Your task to perform on an android device: turn on showing notifications on the lock screen Image 0: 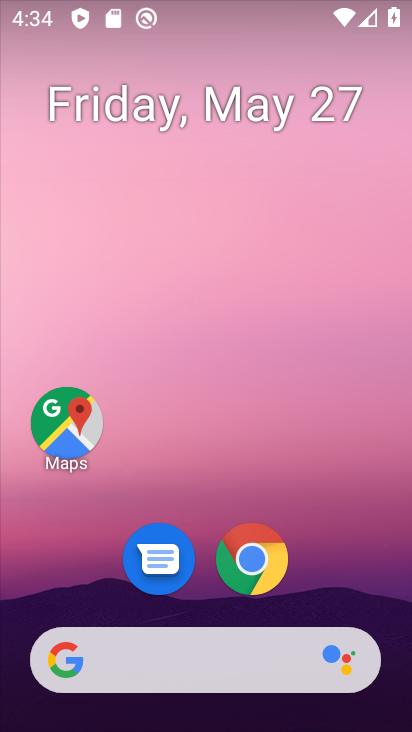
Step 0: drag from (324, 522) to (271, 97)
Your task to perform on an android device: turn on showing notifications on the lock screen Image 1: 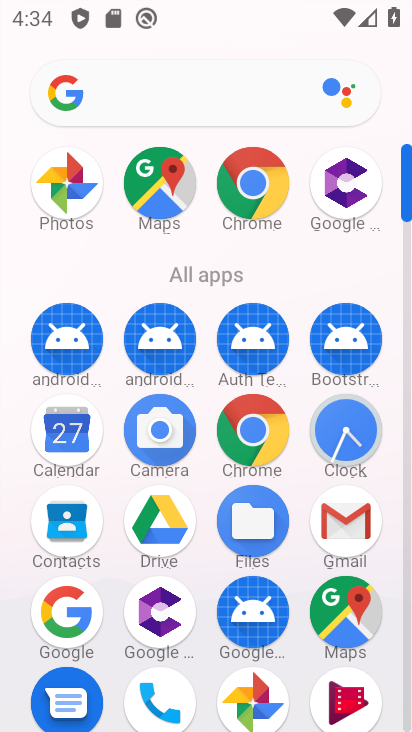
Step 1: drag from (215, 473) to (226, 137)
Your task to perform on an android device: turn on showing notifications on the lock screen Image 2: 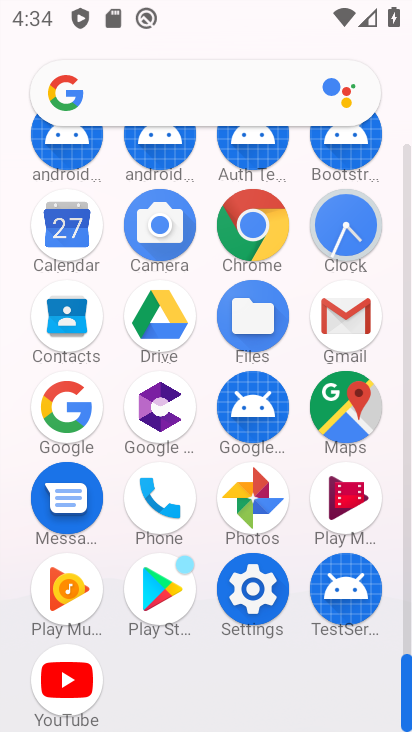
Step 2: click (240, 604)
Your task to perform on an android device: turn on showing notifications on the lock screen Image 3: 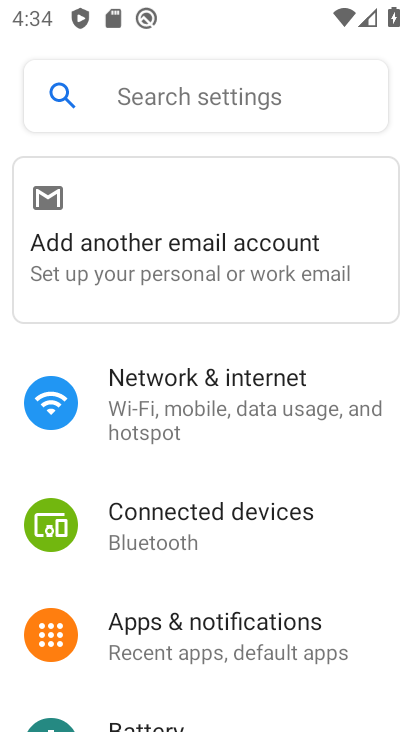
Step 3: click (220, 628)
Your task to perform on an android device: turn on showing notifications on the lock screen Image 4: 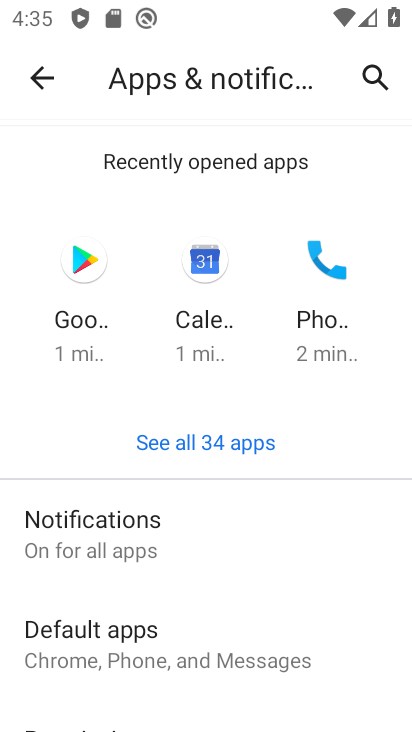
Step 4: drag from (199, 591) to (276, 214)
Your task to perform on an android device: turn on showing notifications on the lock screen Image 5: 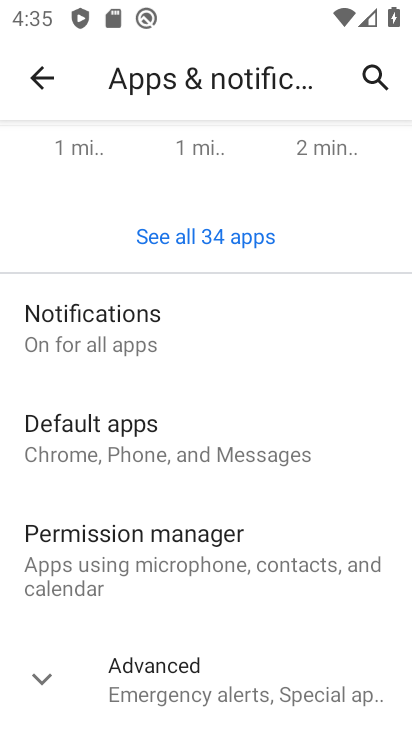
Step 5: click (71, 314)
Your task to perform on an android device: turn on showing notifications on the lock screen Image 6: 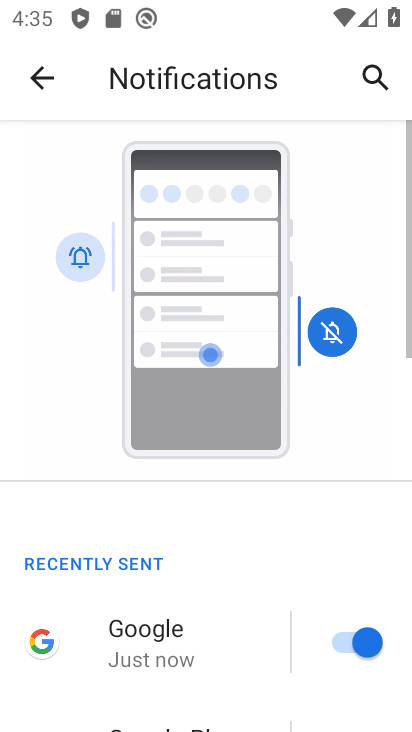
Step 6: drag from (269, 594) to (257, 198)
Your task to perform on an android device: turn on showing notifications on the lock screen Image 7: 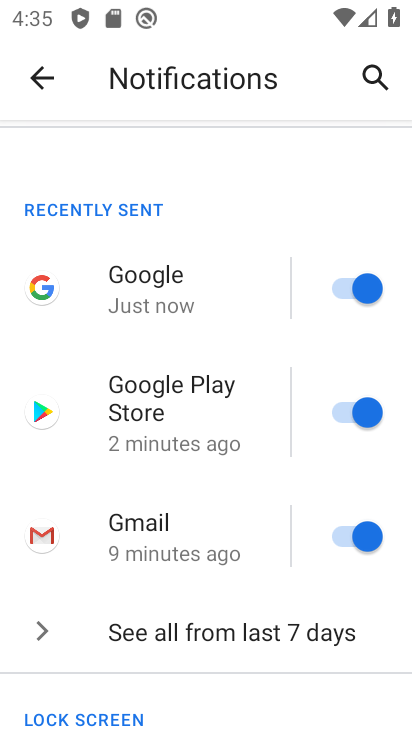
Step 7: drag from (219, 696) to (240, 249)
Your task to perform on an android device: turn on showing notifications on the lock screen Image 8: 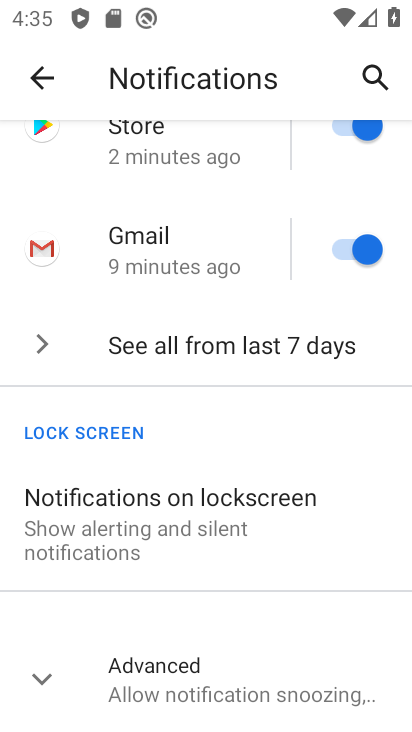
Step 8: click (118, 504)
Your task to perform on an android device: turn on showing notifications on the lock screen Image 9: 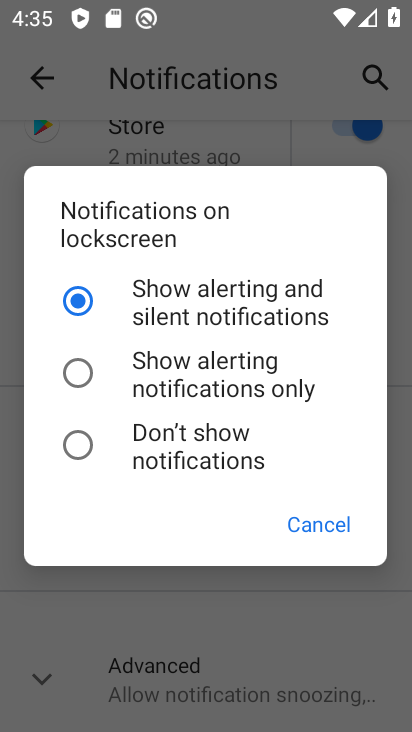
Step 9: click (154, 375)
Your task to perform on an android device: turn on showing notifications on the lock screen Image 10: 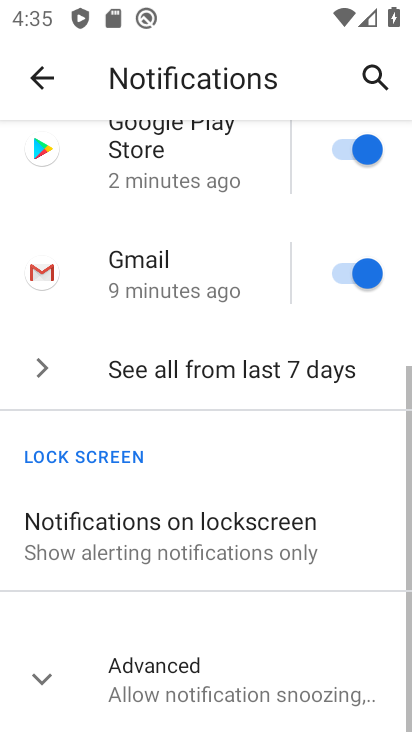
Step 10: task complete